Your task to perform on an android device: turn off translation in the chrome app Image 0: 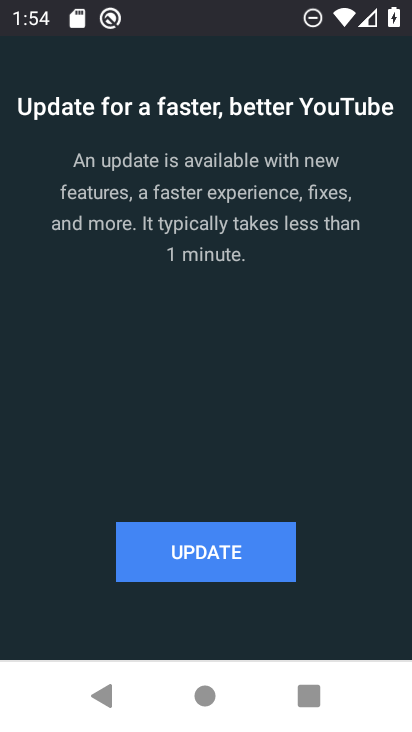
Step 0: press home button
Your task to perform on an android device: turn off translation in the chrome app Image 1: 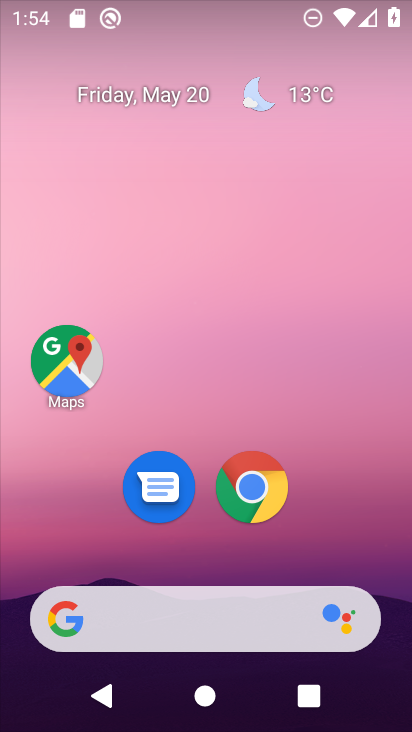
Step 1: click (247, 473)
Your task to perform on an android device: turn off translation in the chrome app Image 2: 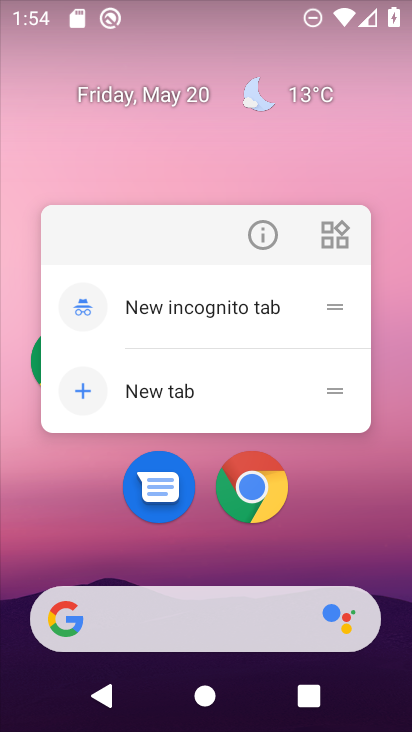
Step 2: click (243, 481)
Your task to perform on an android device: turn off translation in the chrome app Image 3: 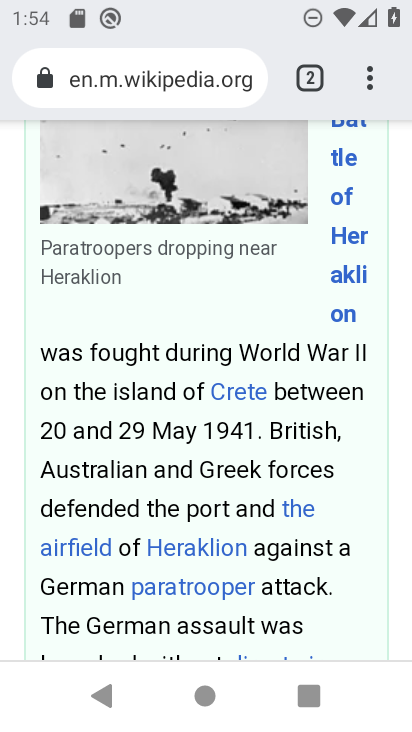
Step 3: click (366, 69)
Your task to perform on an android device: turn off translation in the chrome app Image 4: 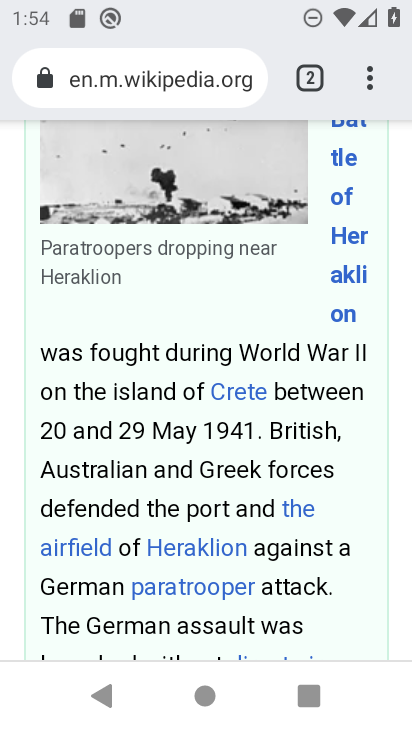
Step 4: click (366, 69)
Your task to perform on an android device: turn off translation in the chrome app Image 5: 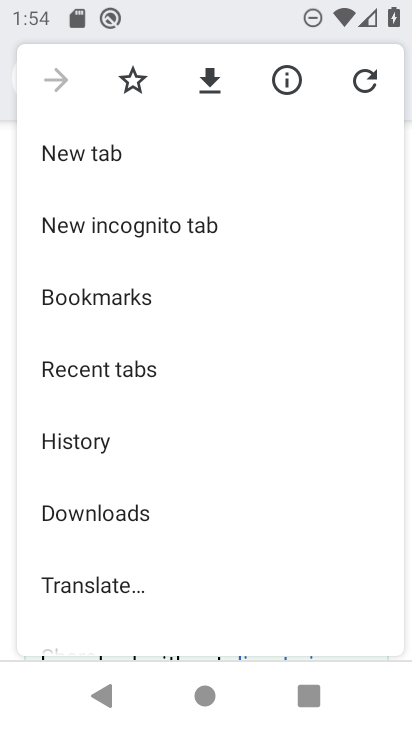
Step 5: drag from (195, 607) to (195, 148)
Your task to perform on an android device: turn off translation in the chrome app Image 6: 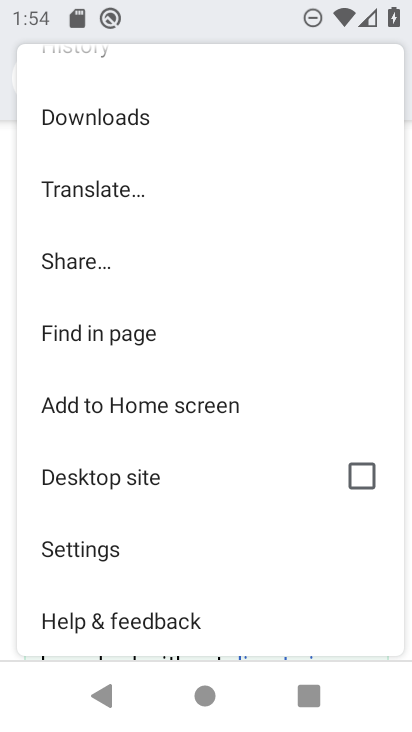
Step 6: click (136, 547)
Your task to perform on an android device: turn off translation in the chrome app Image 7: 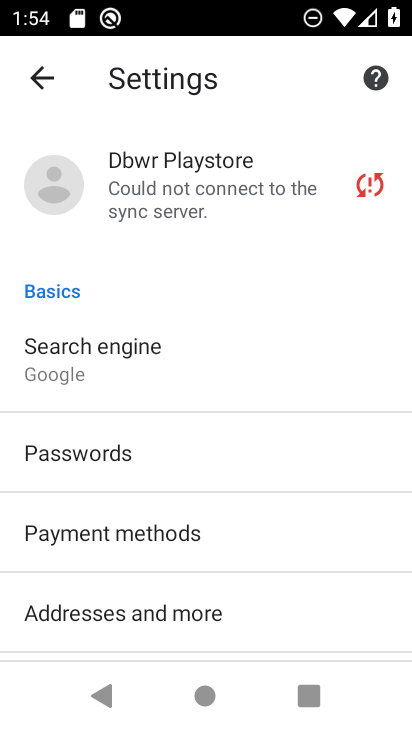
Step 7: drag from (255, 617) to (260, 298)
Your task to perform on an android device: turn off translation in the chrome app Image 8: 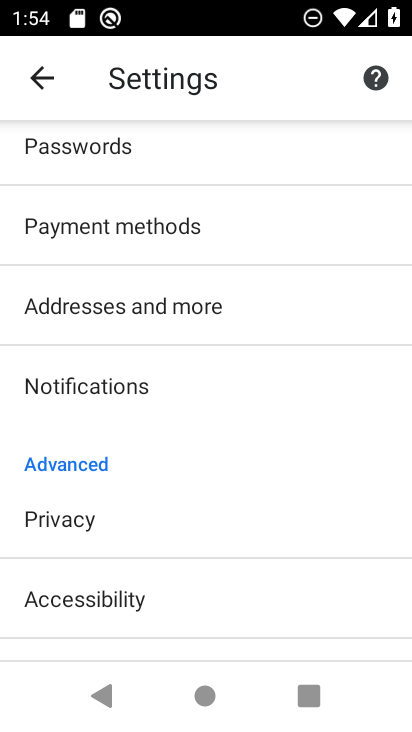
Step 8: drag from (201, 590) to (222, 206)
Your task to perform on an android device: turn off translation in the chrome app Image 9: 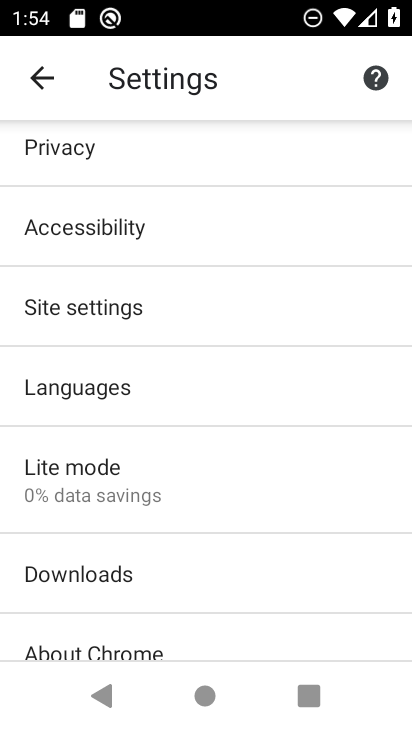
Step 9: click (138, 384)
Your task to perform on an android device: turn off translation in the chrome app Image 10: 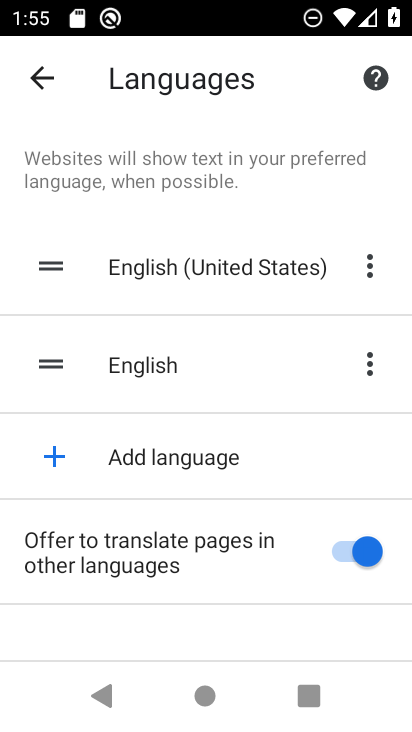
Step 10: click (342, 546)
Your task to perform on an android device: turn off translation in the chrome app Image 11: 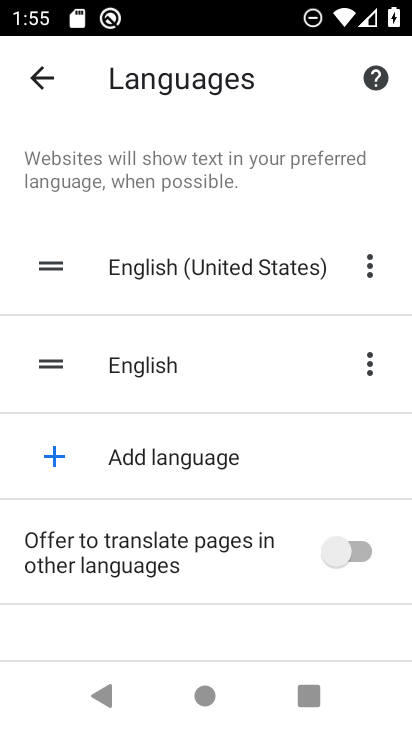
Step 11: task complete